Your task to perform on an android device: Open Google Chrome Image 0: 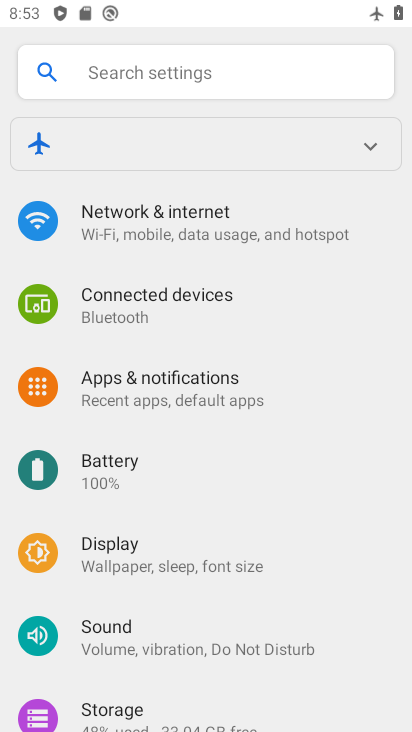
Step 0: press home button
Your task to perform on an android device: Open Google Chrome Image 1: 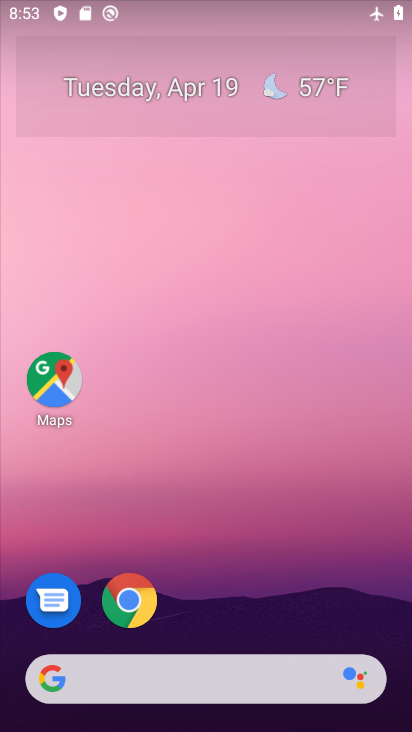
Step 1: drag from (357, 618) to (359, 186)
Your task to perform on an android device: Open Google Chrome Image 2: 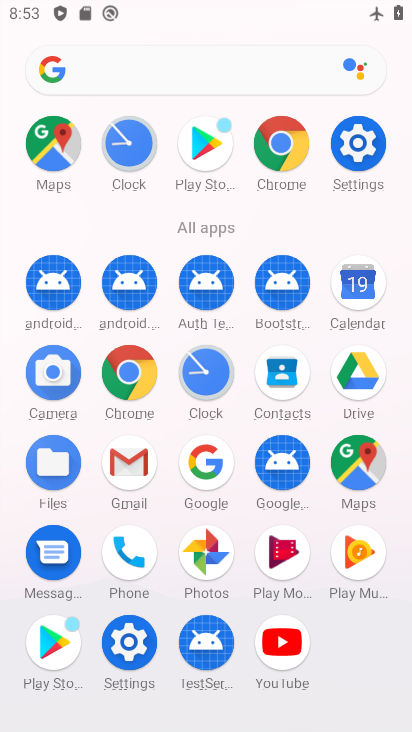
Step 2: click (129, 365)
Your task to perform on an android device: Open Google Chrome Image 3: 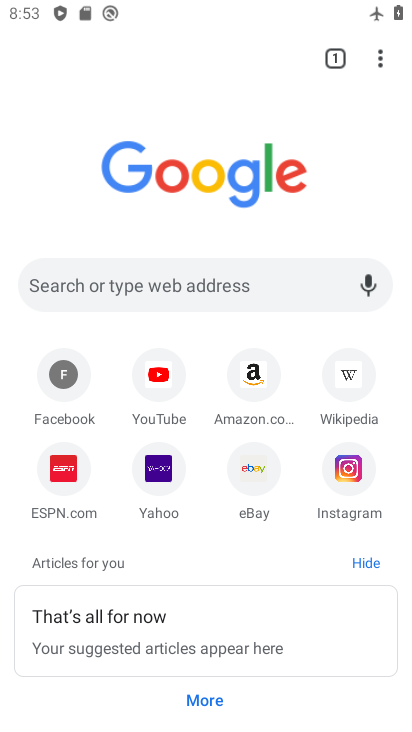
Step 3: task complete